Your task to perform on an android device: stop showing notifications on the lock screen Image 0: 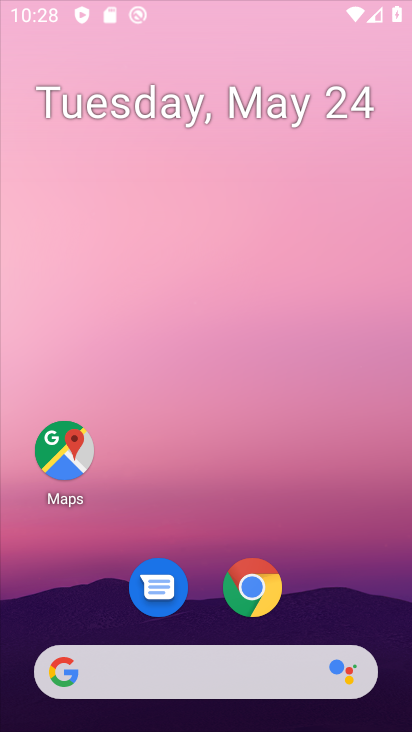
Step 0: press home button
Your task to perform on an android device: stop showing notifications on the lock screen Image 1: 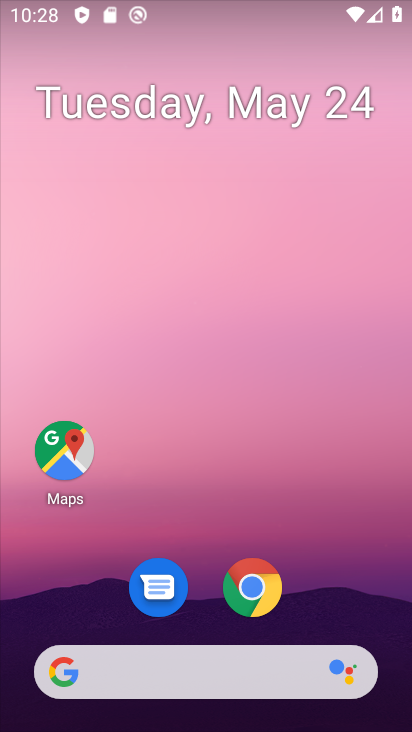
Step 1: drag from (334, 584) to (313, 0)
Your task to perform on an android device: stop showing notifications on the lock screen Image 2: 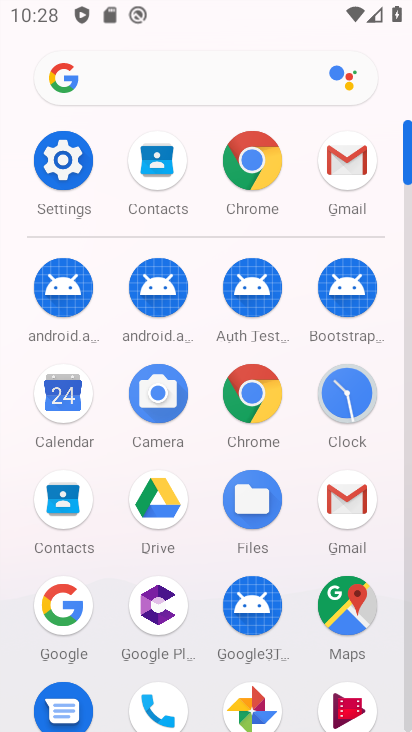
Step 2: click (42, 196)
Your task to perform on an android device: stop showing notifications on the lock screen Image 3: 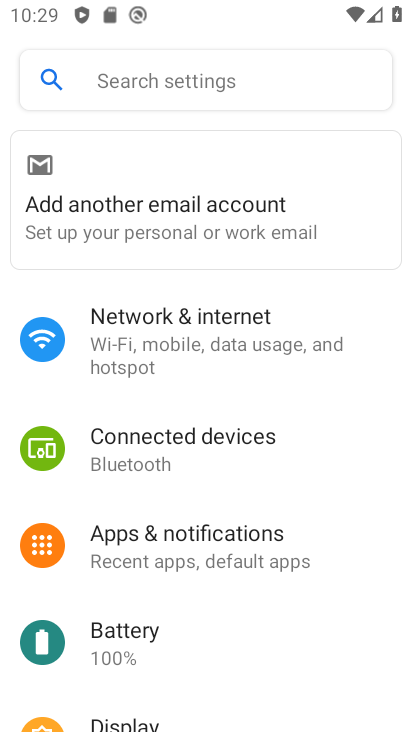
Step 3: click (237, 536)
Your task to perform on an android device: stop showing notifications on the lock screen Image 4: 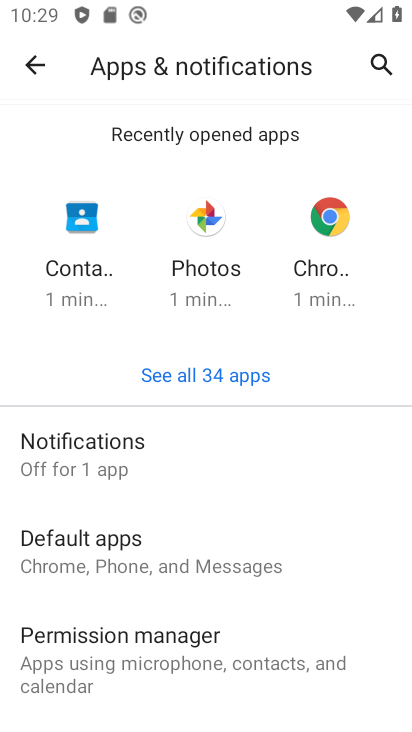
Step 4: click (150, 439)
Your task to perform on an android device: stop showing notifications on the lock screen Image 5: 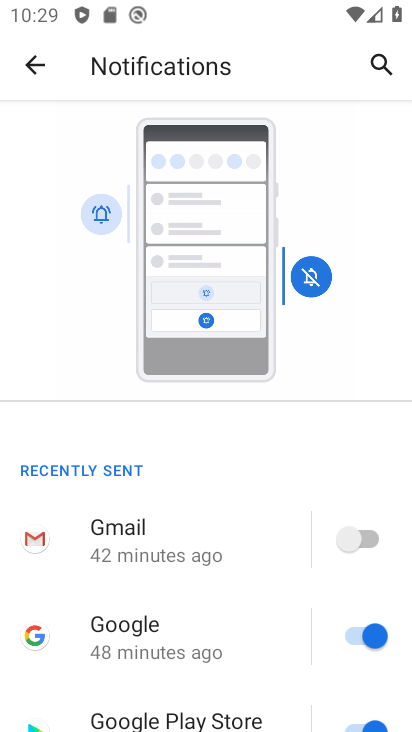
Step 5: drag from (189, 612) to (278, 165)
Your task to perform on an android device: stop showing notifications on the lock screen Image 6: 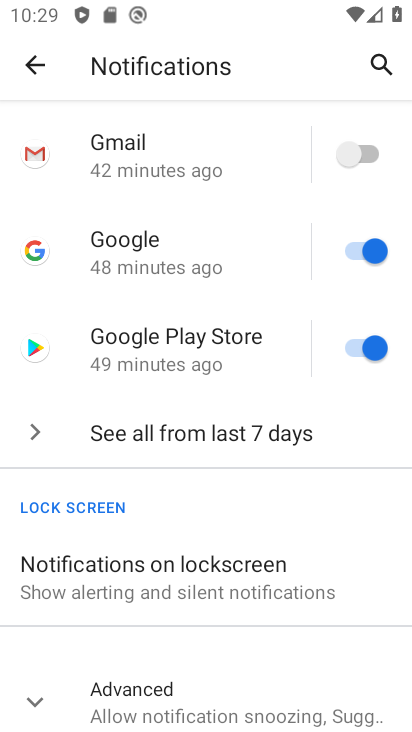
Step 6: click (214, 583)
Your task to perform on an android device: stop showing notifications on the lock screen Image 7: 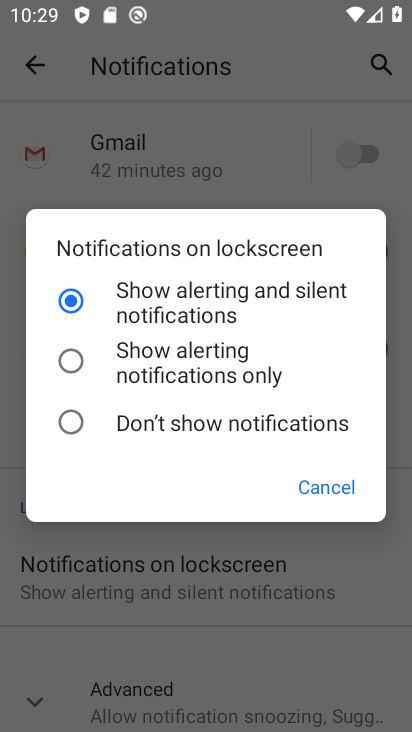
Step 7: click (251, 436)
Your task to perform on an android device: stop showing notifications on the lock screen Image 8: 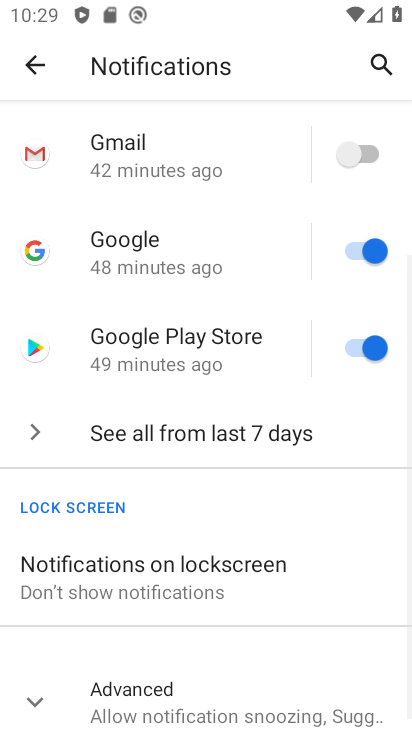
Step 8: task complete